Your task to perform on an android device: check google app version Image 0: 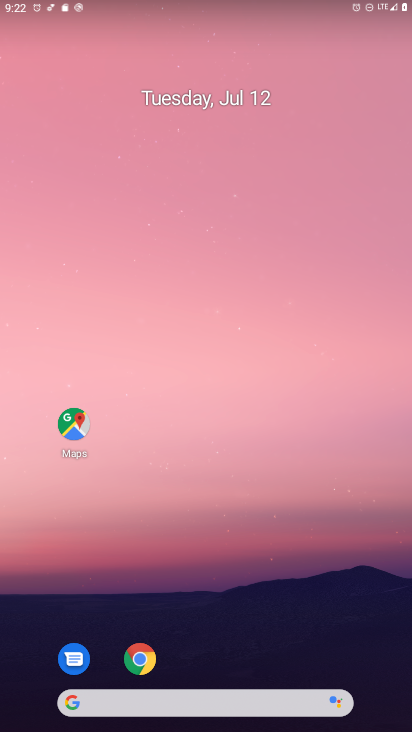
Step 0: drag from (188, 700) to (258, 223)
Your task to perform on an android device: check google app version Image 1: 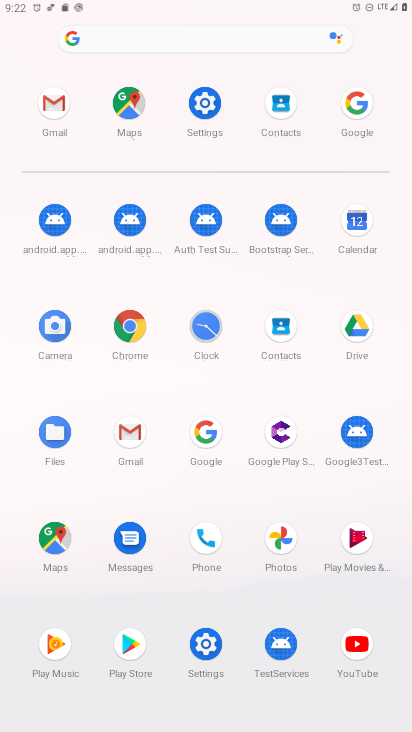
Step 1: click (354, 105)
Your task to perform on an android device: check google app version Image 2: 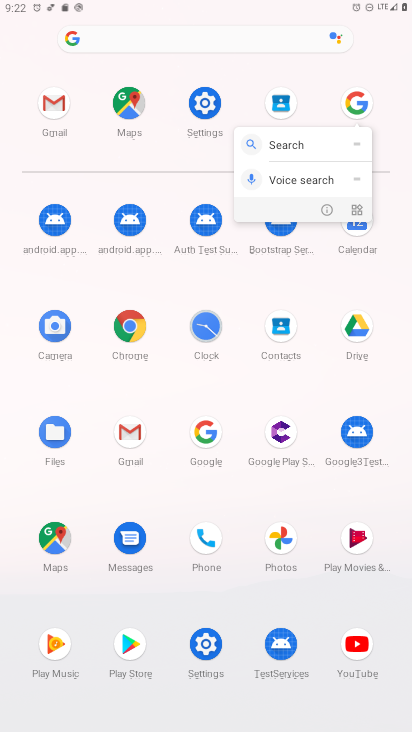
Step 2: click (322, 206)
Your task to perform on an android device: check google app version Image 3: 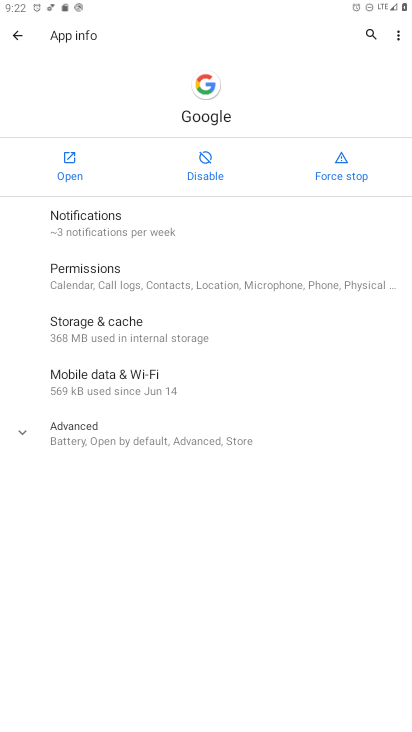
Step 3: click (161, 434)
Your task to perform on an android device: check google app version Image 4: 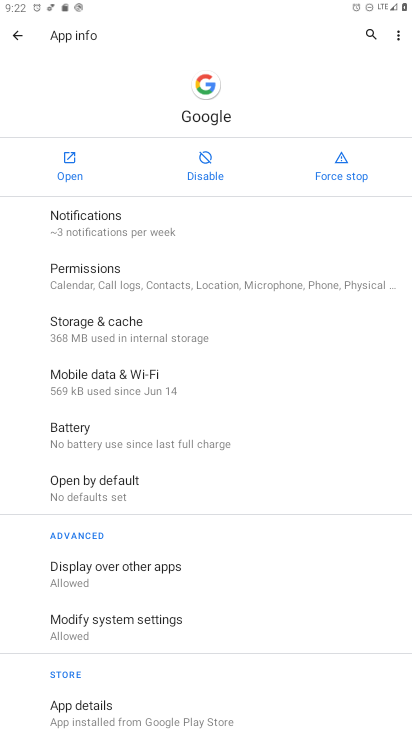
Step 4: task complete